Your task to perform on an android device: open app "Microsoft Authenticator" Image 0: 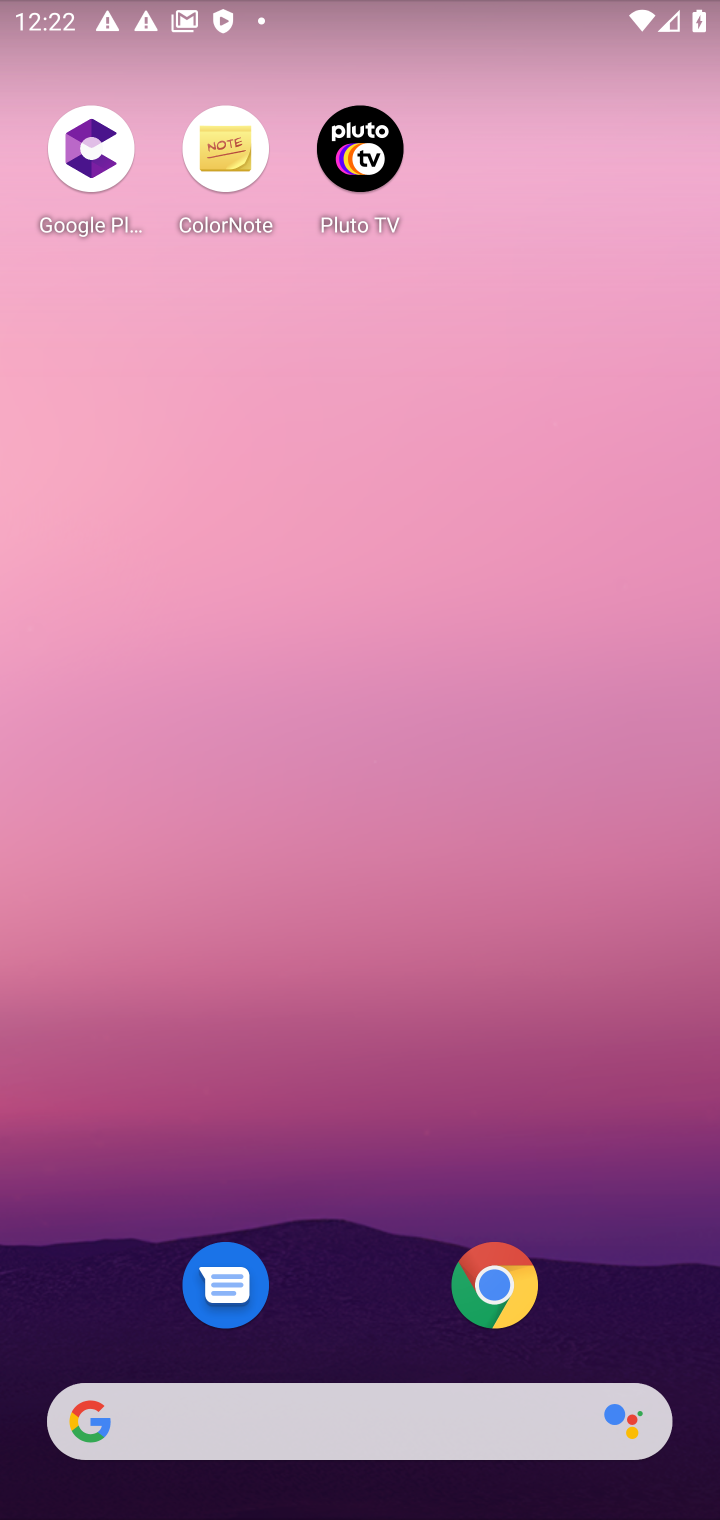
Step 0: drag from (339, 1268) to (607, 277)
Your task to perform on an android device: open app "Microsoft Authenticator" Image 1: 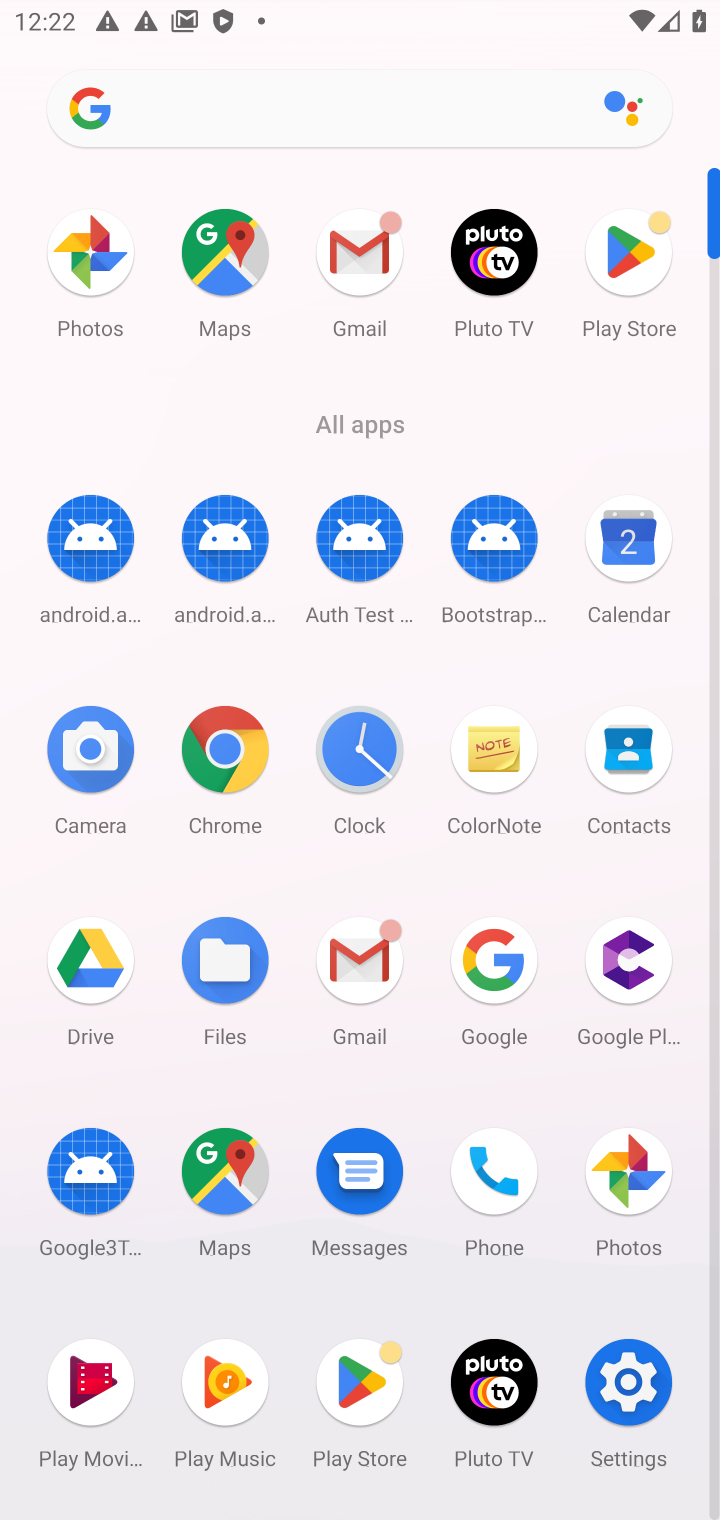
Step 1: click (367, 1391)
Your task to perform on an android device: open app "Microsoft Authenticator" Image 2: 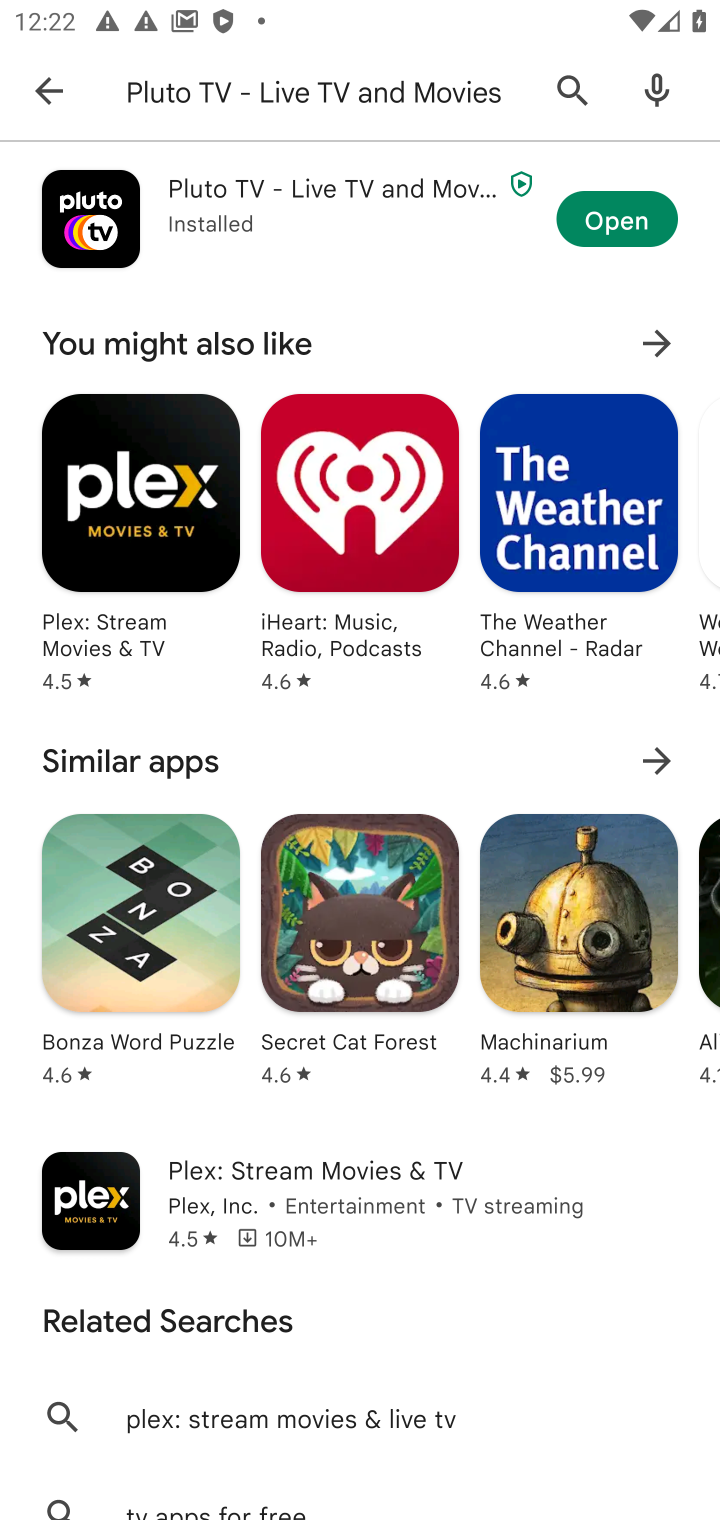
Step 2: click (368, 105)
Your task to perform on an android device: open app "Microsoft Authenticator" Image 3: 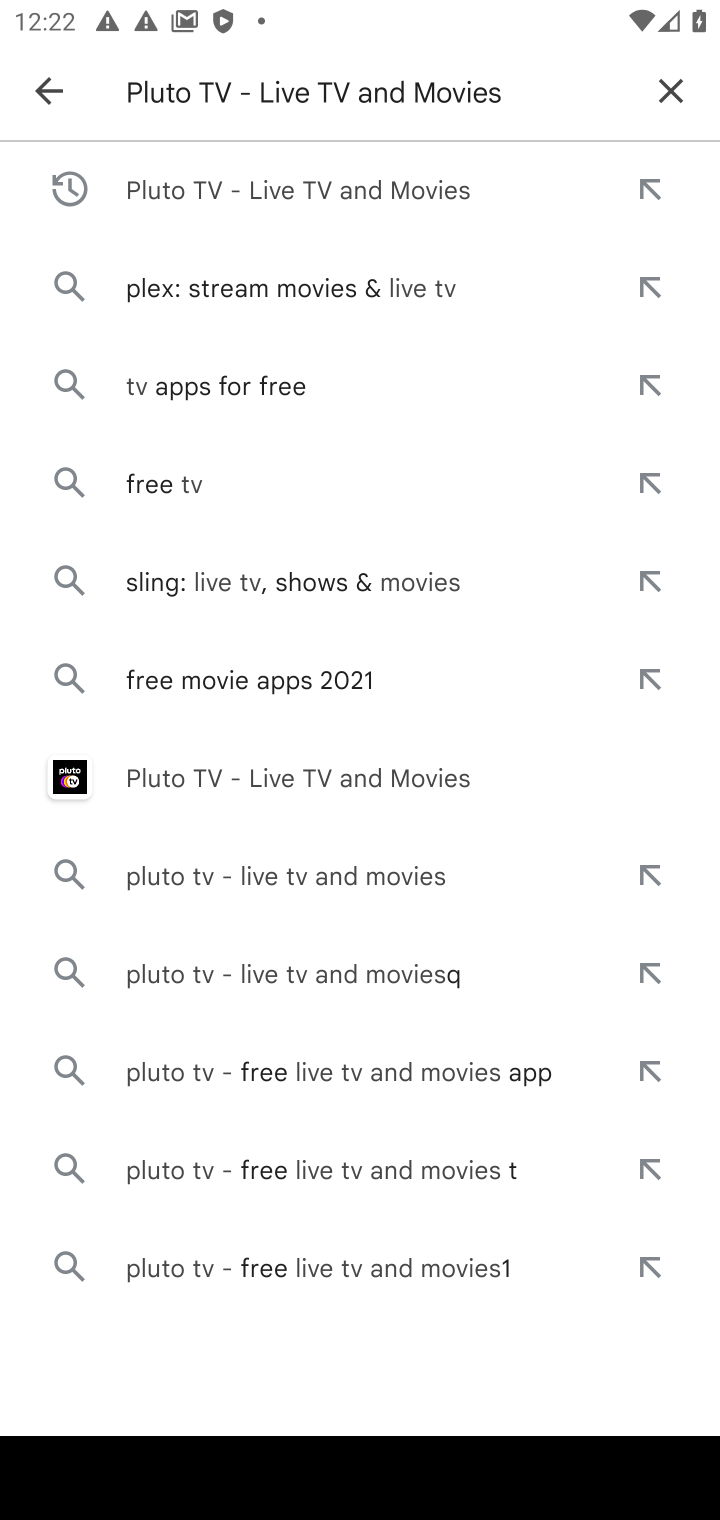
Step 3: click (687, 86)
Your task to perform on an android device: open app "Microsoft Authenticator" Image 4: 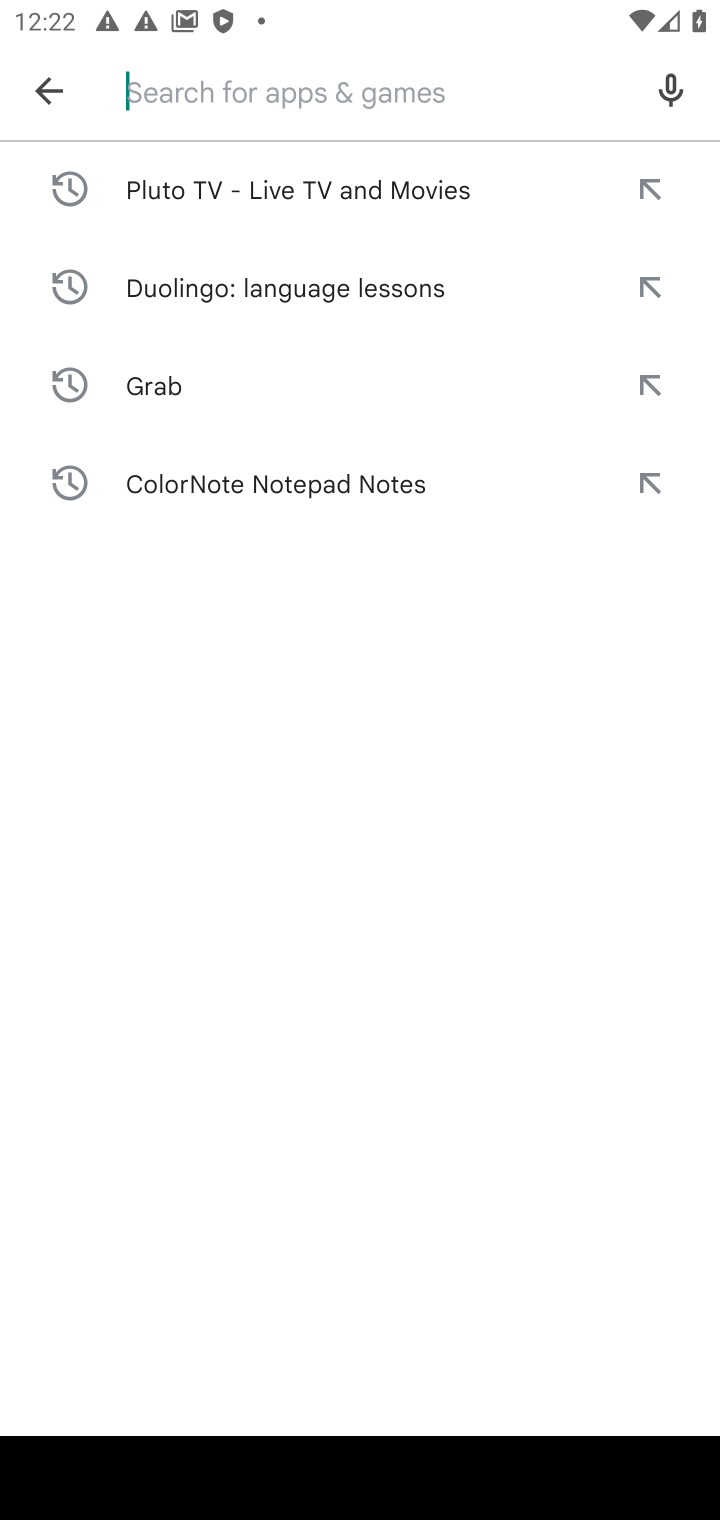
Step 4: type "Microsoft Authenticator"
Your task to perform on an android device: open app "Microsoft Authenticator" Image 5: 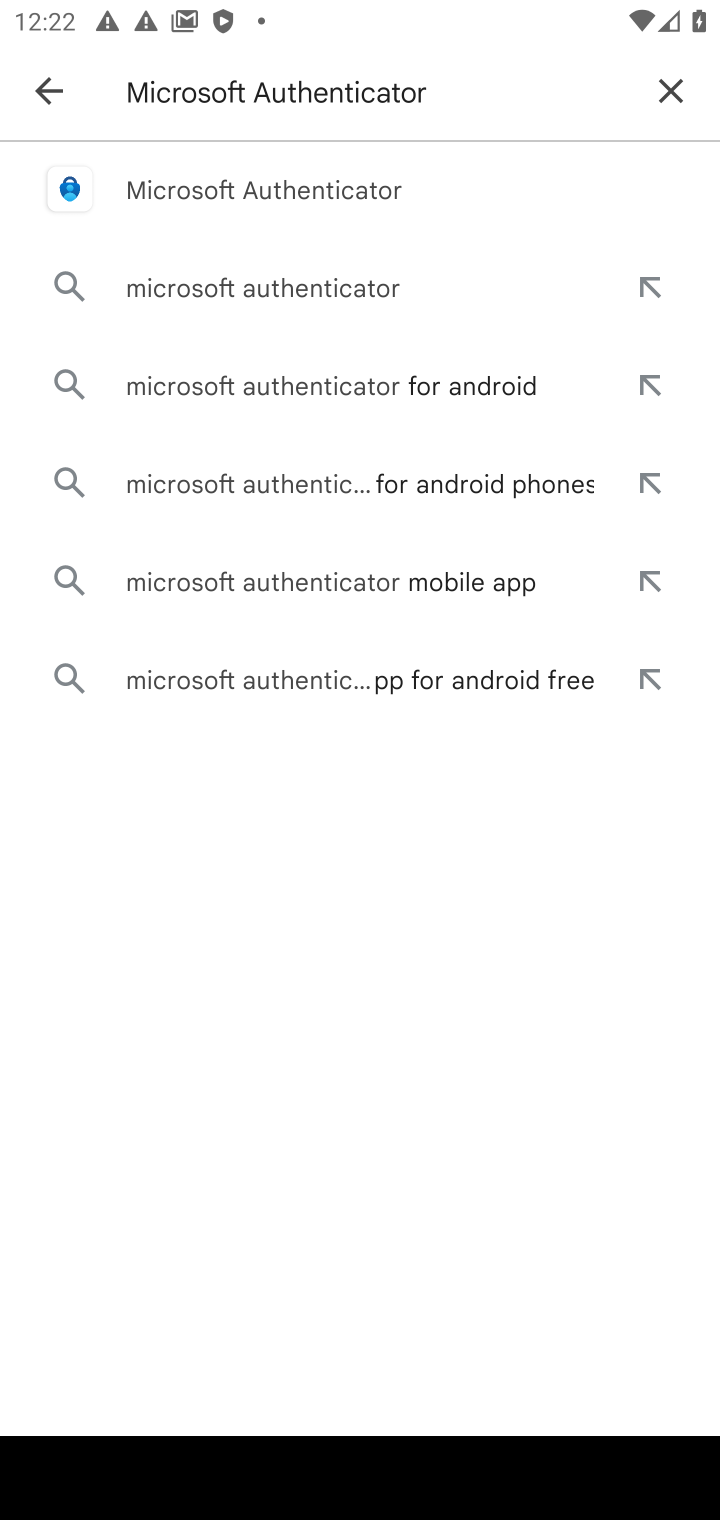
Step 5: press enter
Your task to perform on an android device: open app "Microsoft Authenticator" Image 6: 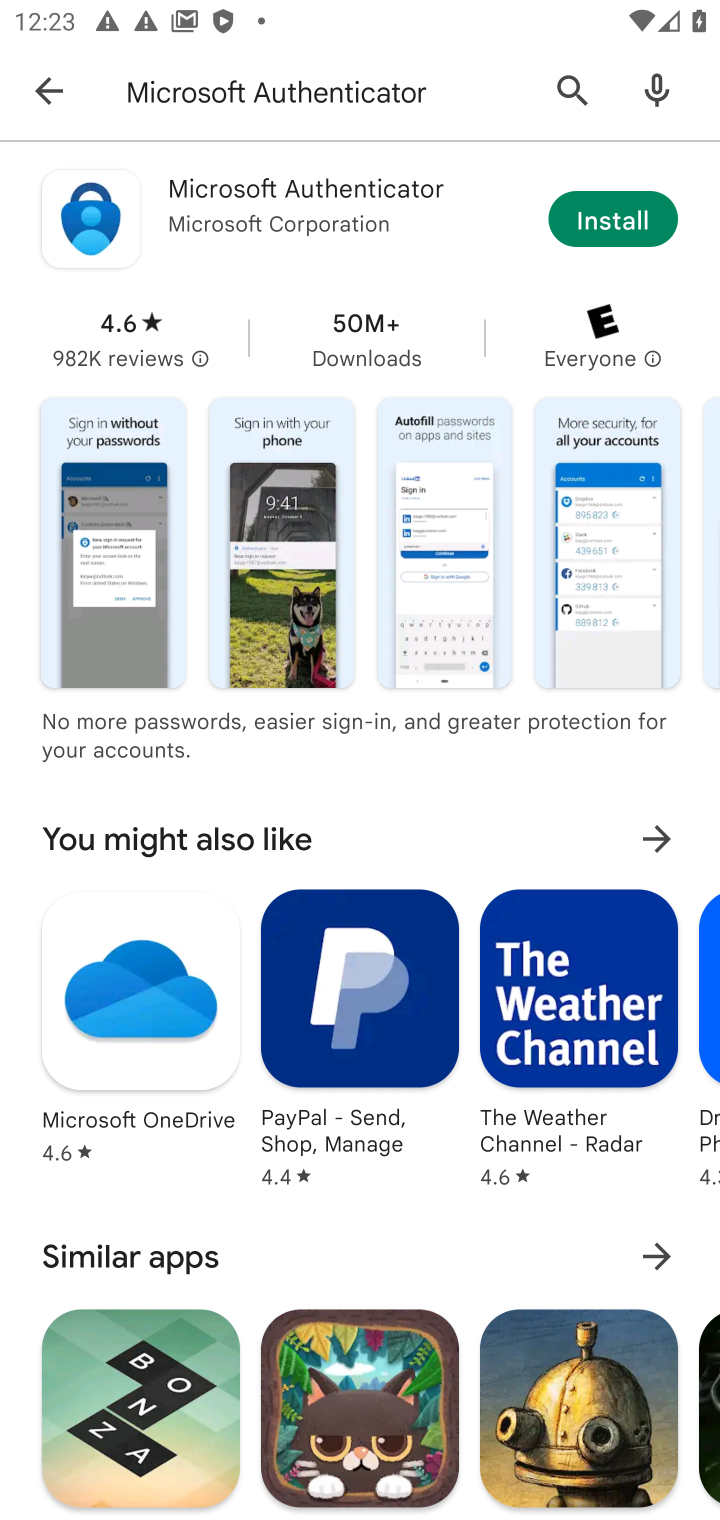
Step 6: task complete